Your task to perform on an android device: toggle location history Image 0: 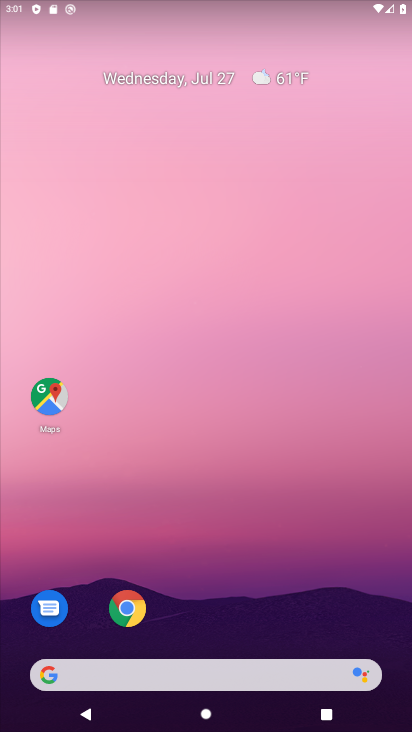
Step 0: click (385, 598)
Your task to perform on an android device: toggle location history Image 1: 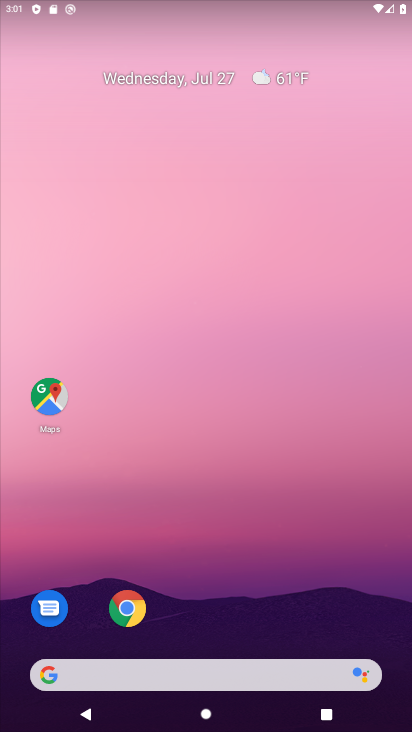
Step 1: drag from (385, 598) to (315, 123)
Your task to perform on an android device: toggle location history Image 2: 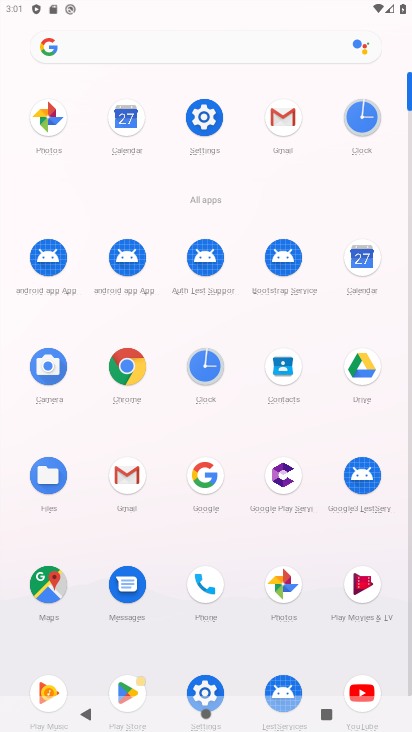
Step 2: click (208, 681)
Your task to perform on an android device: toggle location history Image 3: 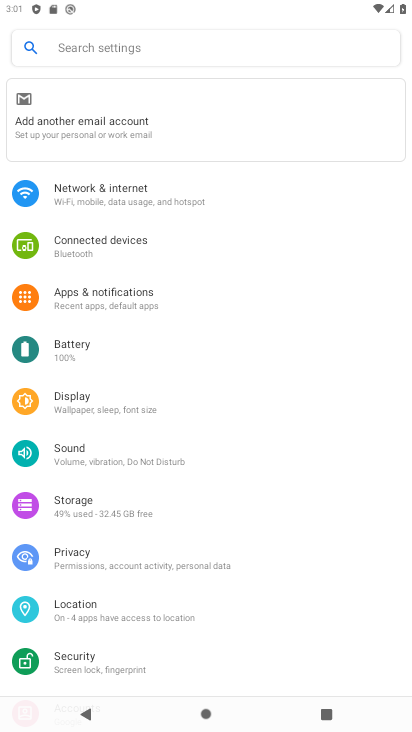
Step 3: click (85, 612)
Your task to perform on an android device: toggle location history Image 4: 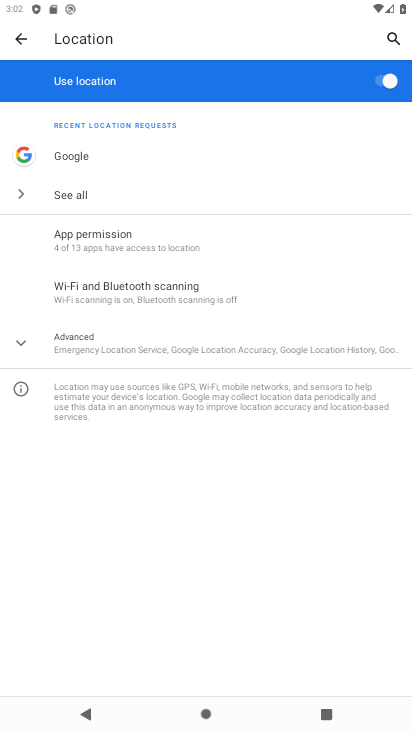
Step 4: click (195, 343)
Your task to perform on an android device: toggle location history Image 5: 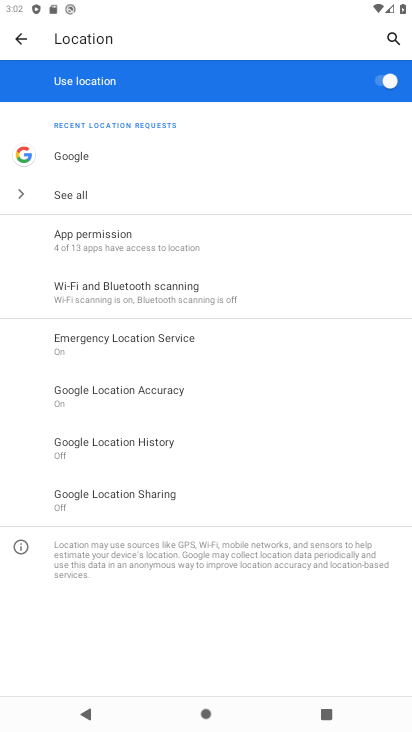
Step 5: click (158, 445)
Your task to perform on an android device: toggle location history Image 6: 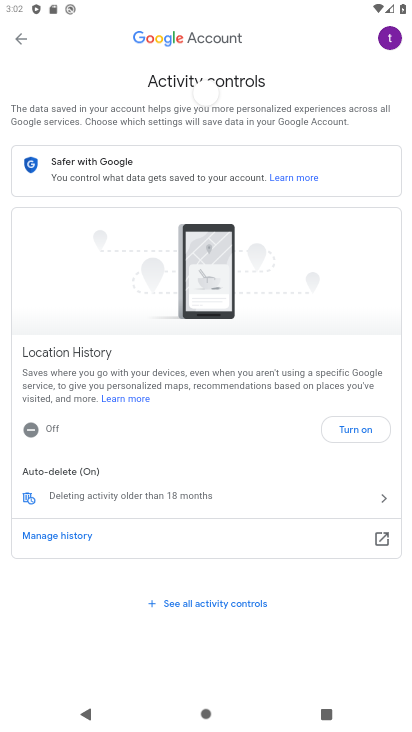
Step 6: click (345, 427)
Your task to perform on an android device: toggle location history Image 7: 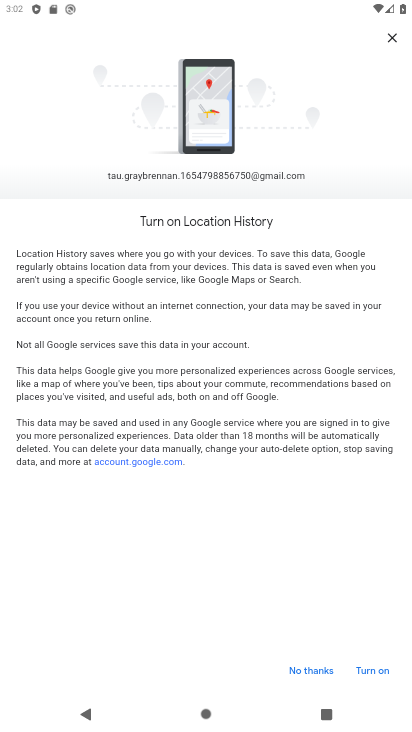
Step 7: click (386, 671)
Your task to perform on an android device: toggle location history Image 8: 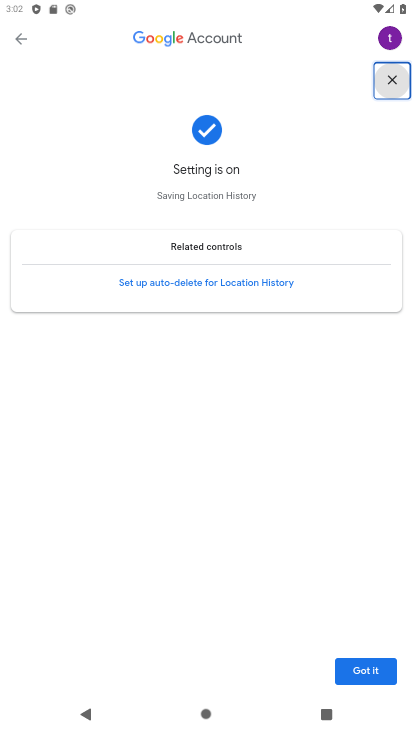
Step 8: click (386, 671)
Your task to perform on an android device: toggle location history Image 9: 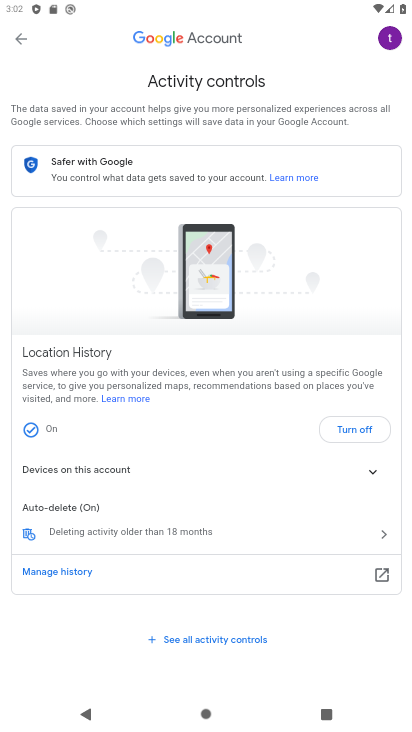
Step 9: task complete